Your task to perform on an android device: Open Chrome and go to the settings page Image 0: 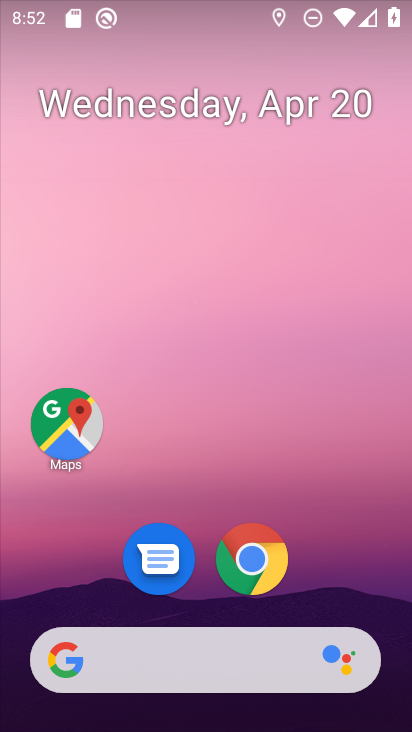
Step 0: click (249, 557)
Your task to perform on an android device: Open Chrome and go to the settings page Image 1: 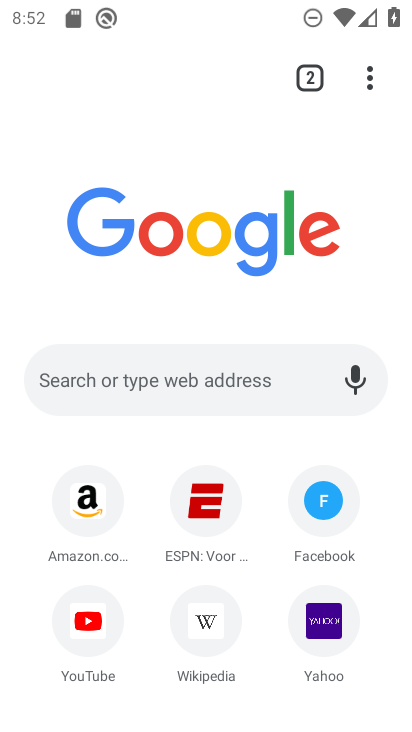
Step 1: click (368, 84)
Your task to perform on an android device: Open Chrome and go to the settings page Image 2: 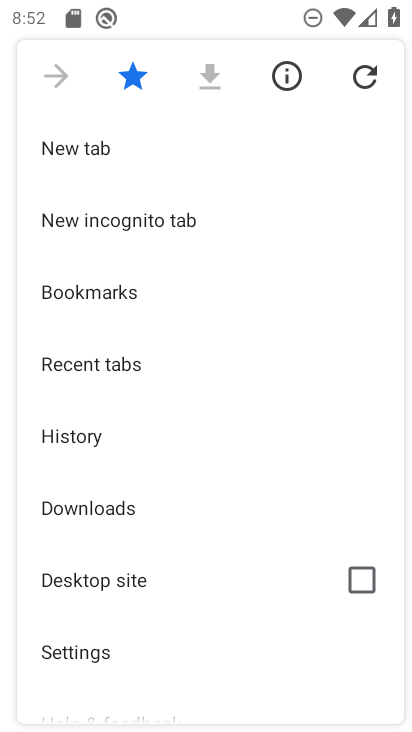
Step 2: click (91, 652)
Your task to perform on an android device: Open Chrome and go to the settings page Image 3: 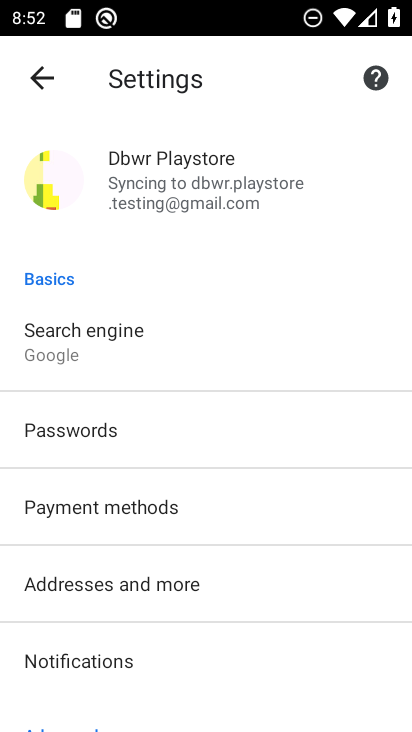
Step 3: task complete